Your task to perform on an android device: What's the weather going to be tomorrow? Image 0: 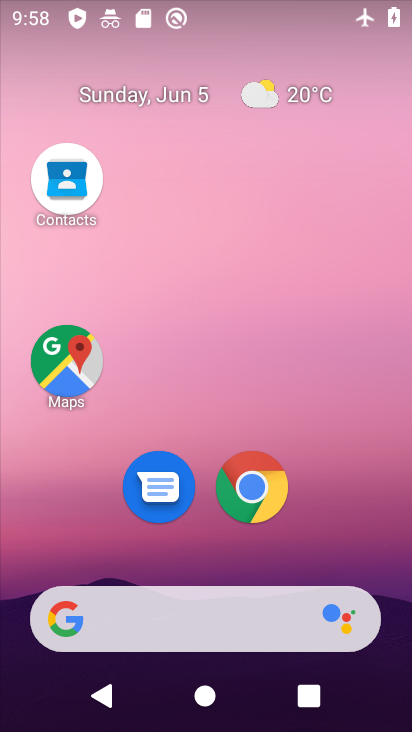
Step 0: drag from (237, 642) to (207, 103)
Your task to perform on an android device: What's the weather going to be tomorrow? Image 1: 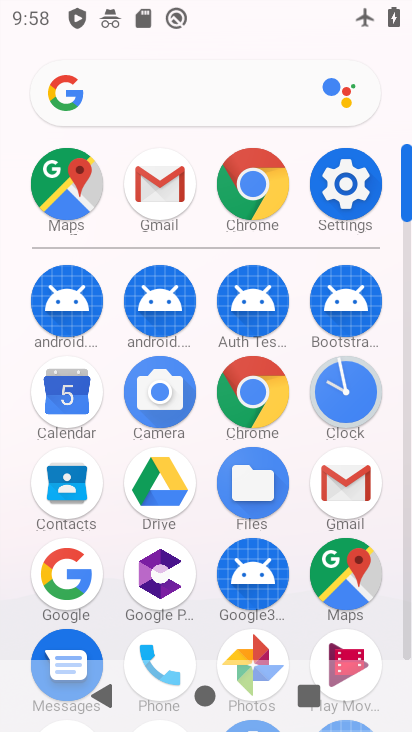
Step 1: click (84, 587)
Your task to perform on an android device: What's the weather going to be tomorrow? Image 2: 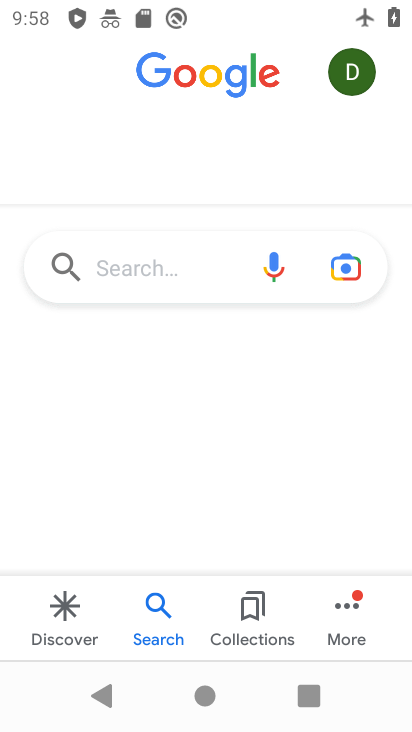
Step 2: click (178, 271)
Your task to perform on an android device: What's the weather going to be tomorrow? Image 3: 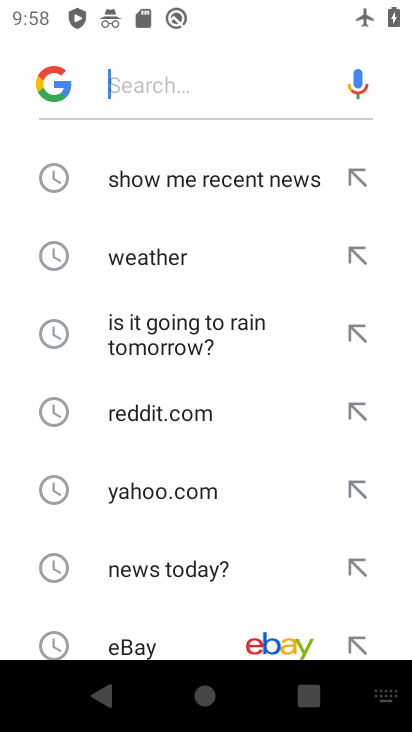
Step 3: click (219, 268)
Your task to perform on an android device: What's the weather going to be tomorrow? Image 4: 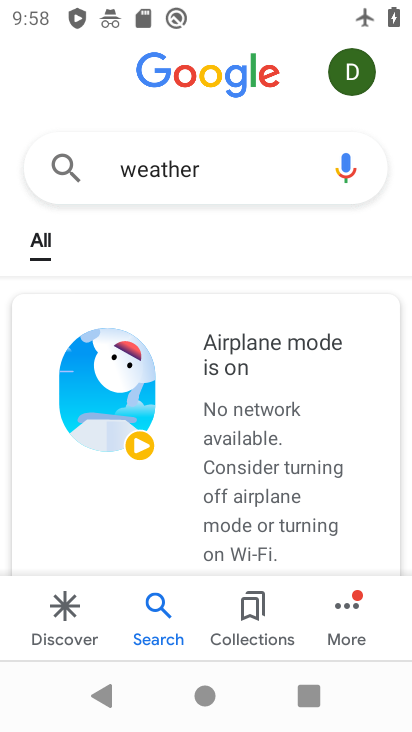
Step 4: task complete